Your task to perform on an android device: Open Yahoo.com Image 0: 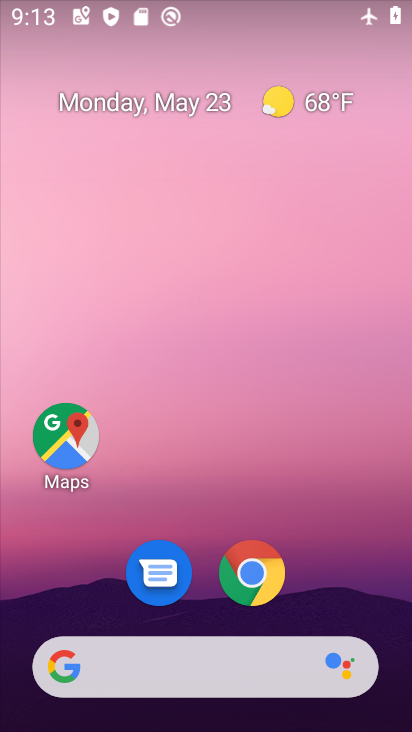
Step 0: click (266, 586)
Your task to perform on an android device: Open Yahoo.com Image 1: 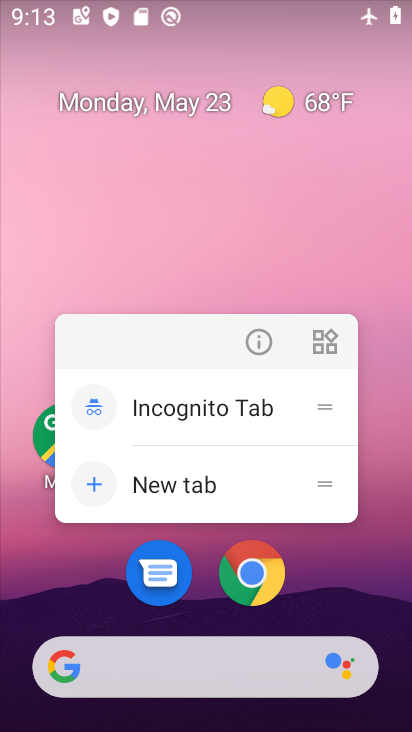
Step 1: click (267, 585)
Your task to perform on an android device: Open Yahoo.com Image 2: 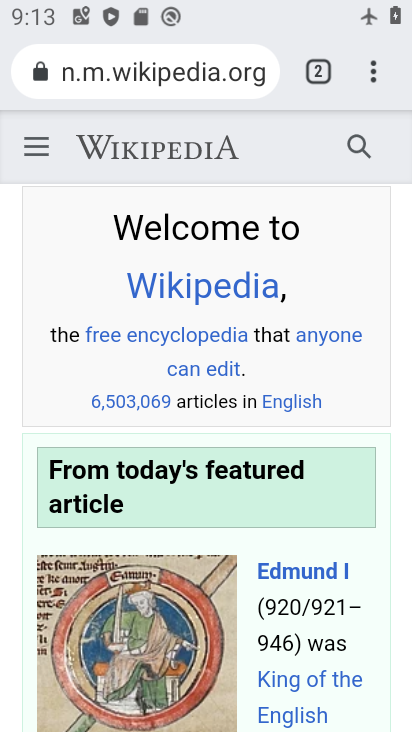
Step 2: click (220, 83)
Your task to perform on an android device: Open Yahoo.com Image 3: 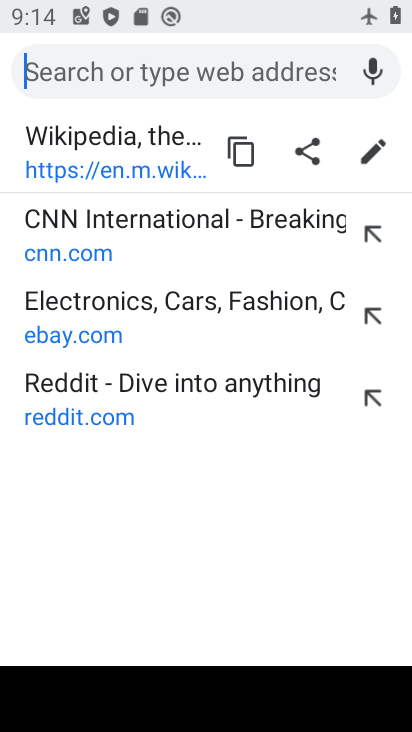
Step 3: type "yahoo"
Your task to perform on an android device: Open Yahoo.com Image 4: 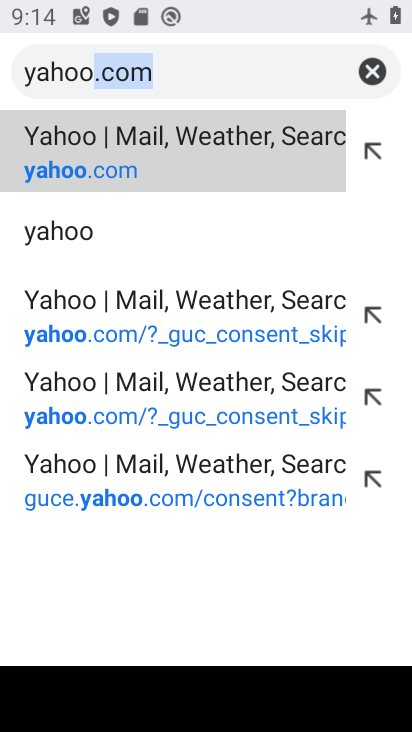
Step 4: click (247, 138)
Your task to perform on an android device: Open Yahoo.com Image 5: 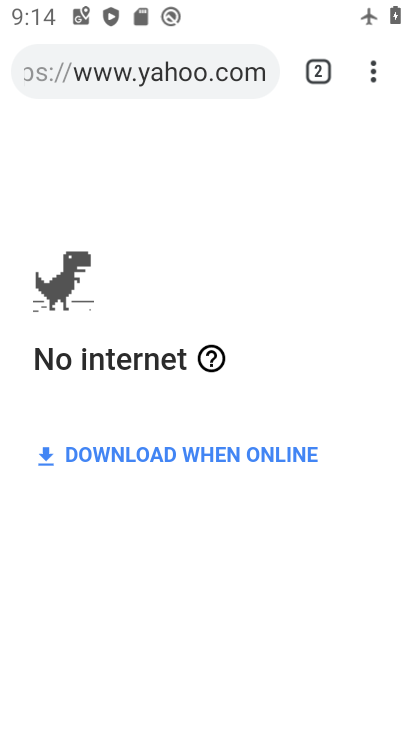
Step 5: task complete